Your task to perform on an android device: clear all cookies in the chrome app Image 0: 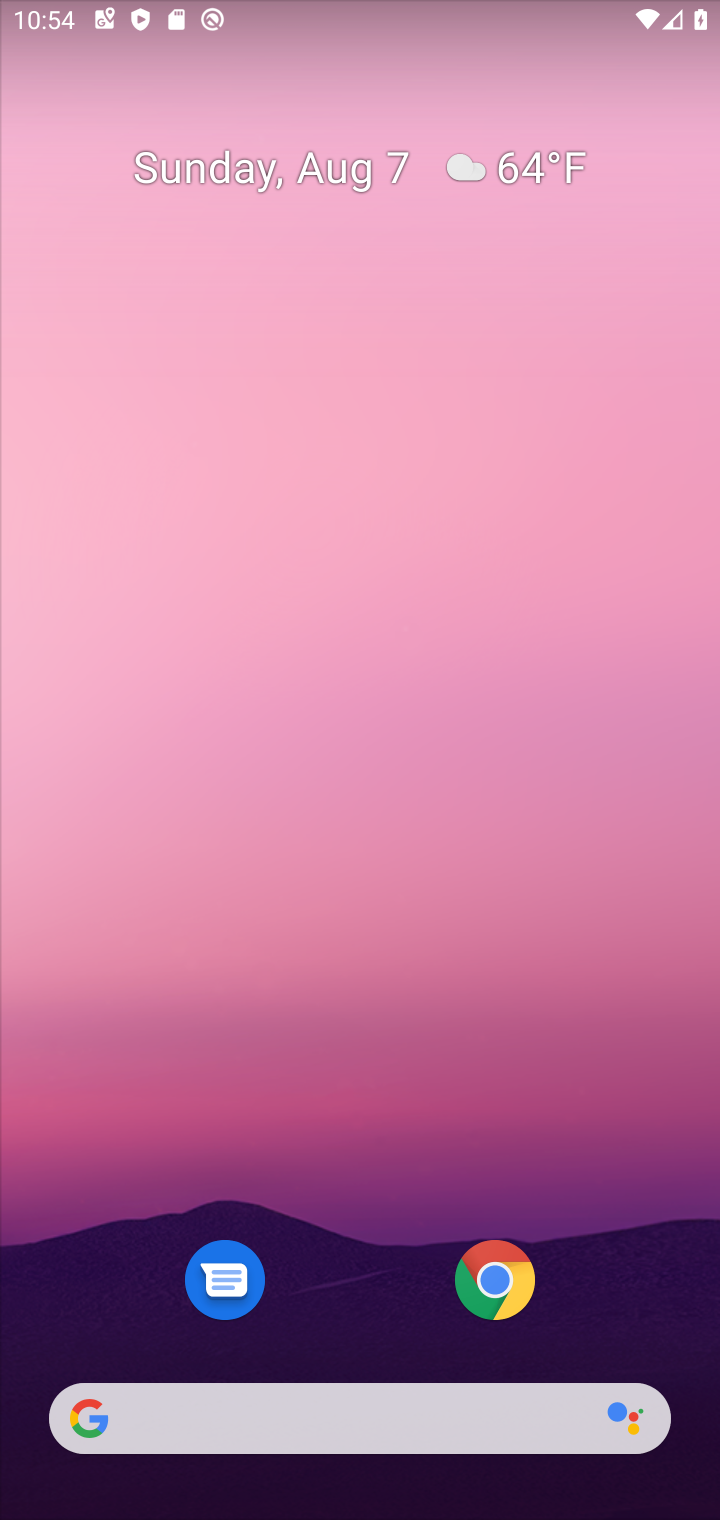
Step 0: click (490, 1276)
Your task to perform on an android device: clear all cookies in the chrome app Image 1: 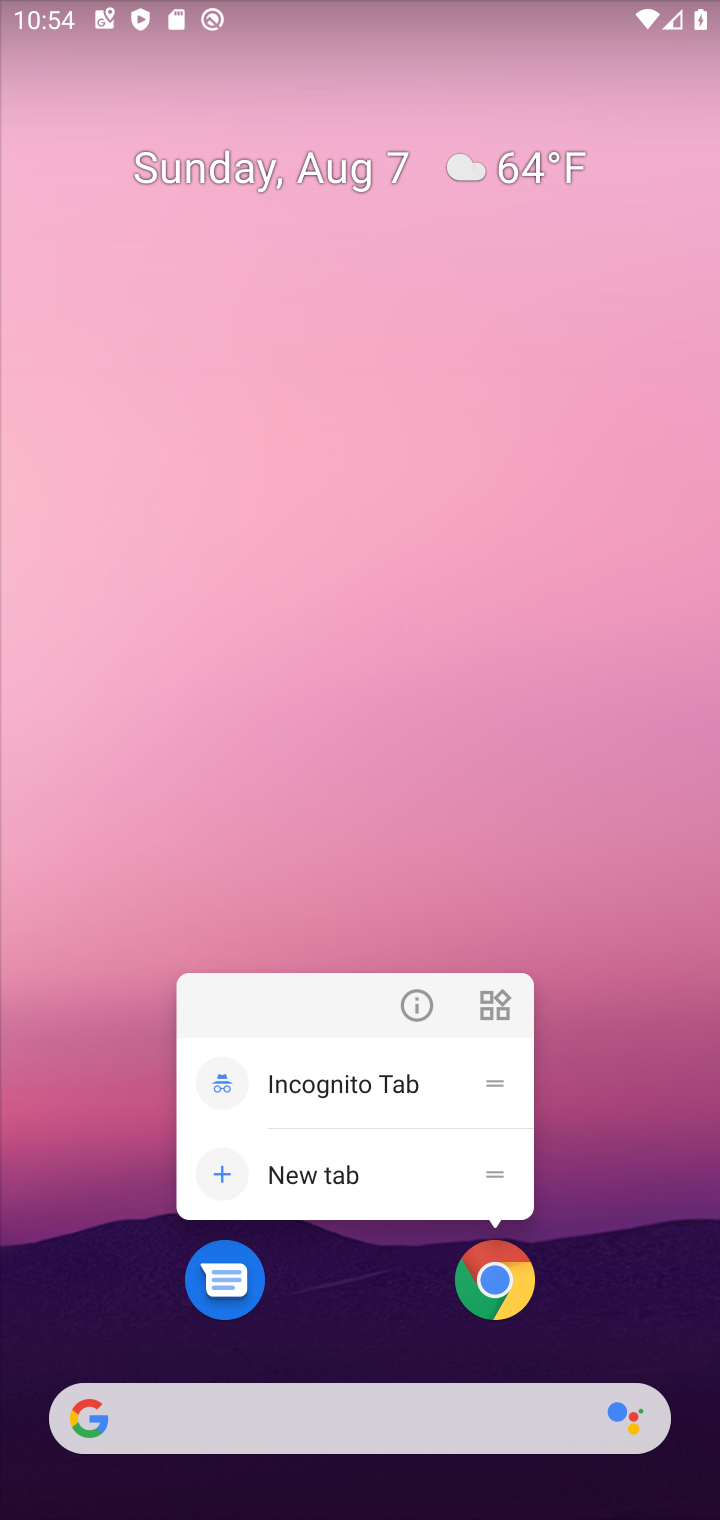
Step 1: click (515, 1271)
Your task to perform on an android device: clear all cookies in the chrome app Image 2: 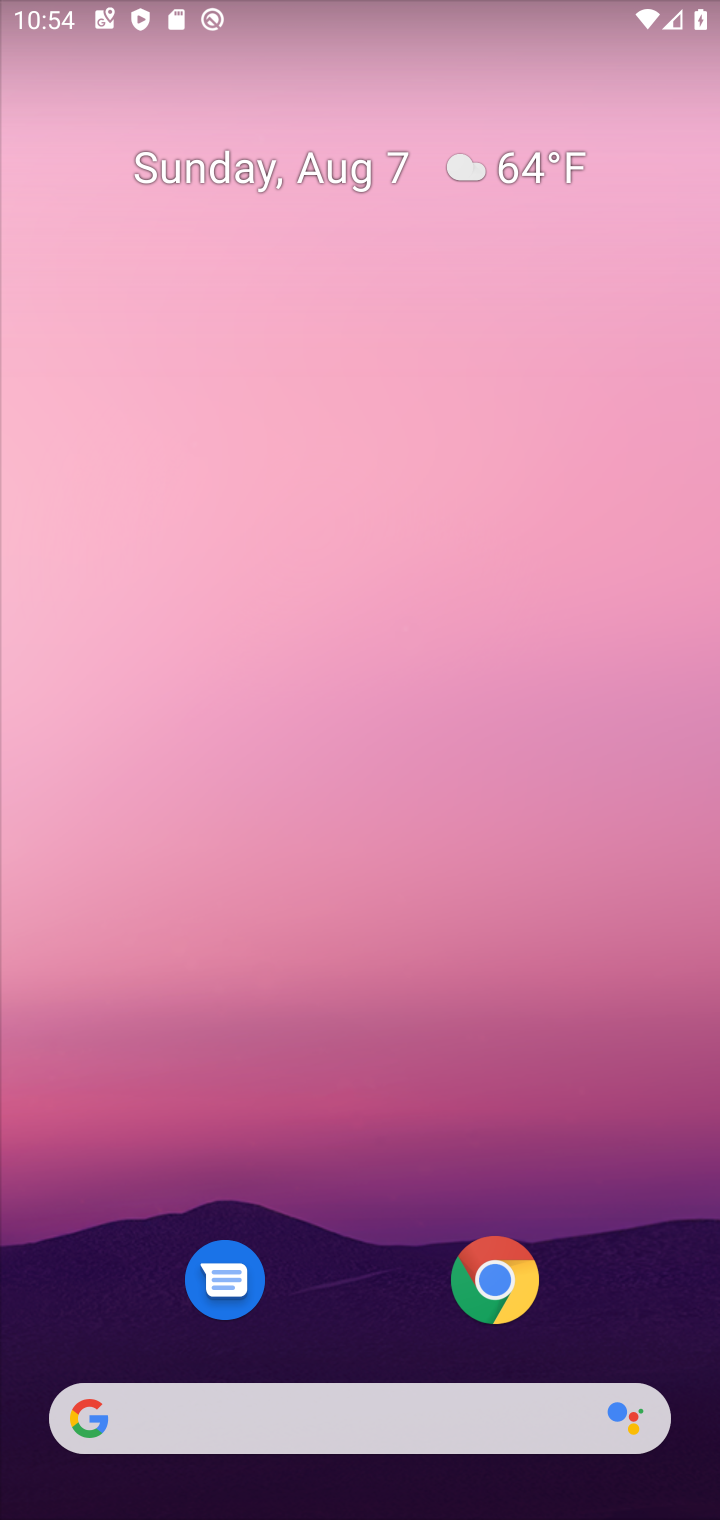
Step 2: click (488, 1285)
Your task to perform on an android device: clear all cookies in the chrome app Image 3: 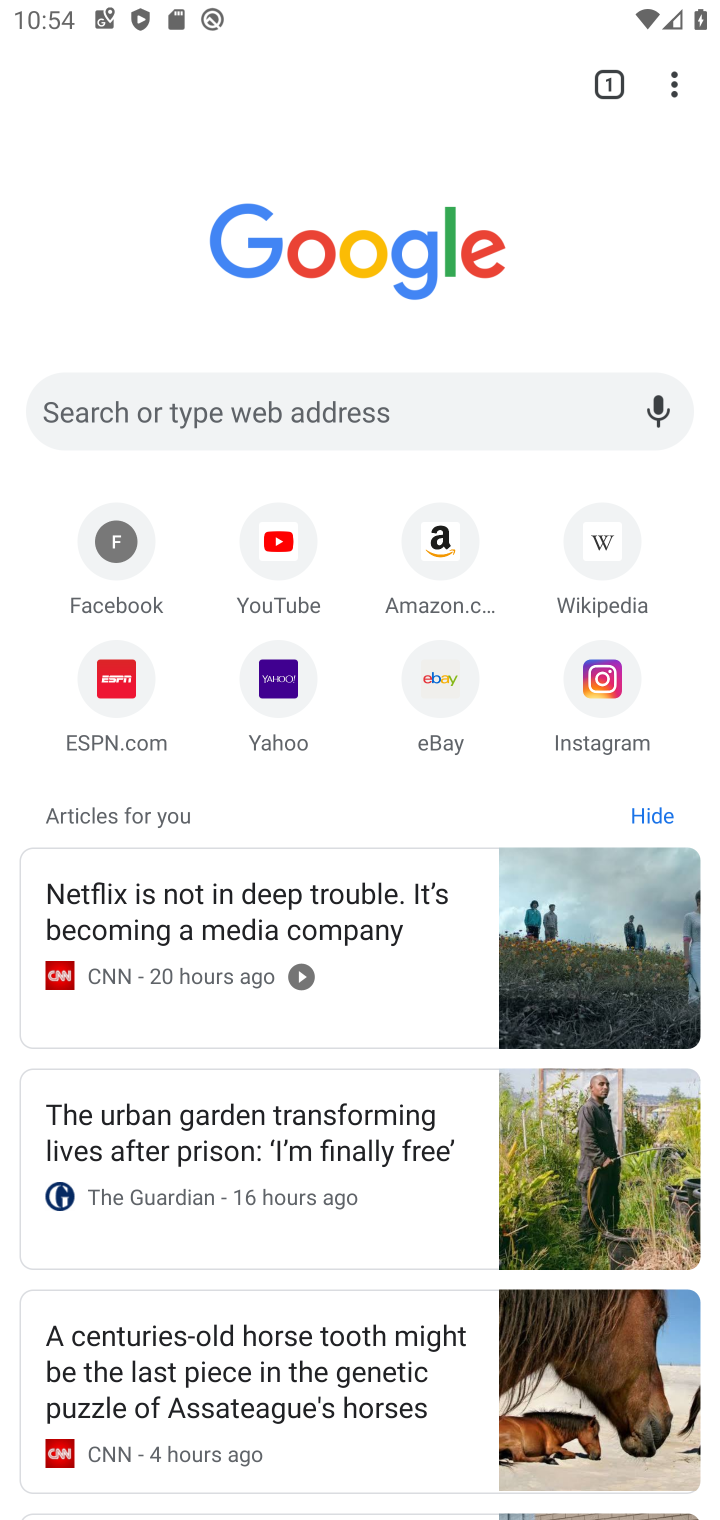
Step 3: drag from (677, 72) to (394, 466)
Your task to perform on an android device: clear all cookies in the chrome app Image 4: 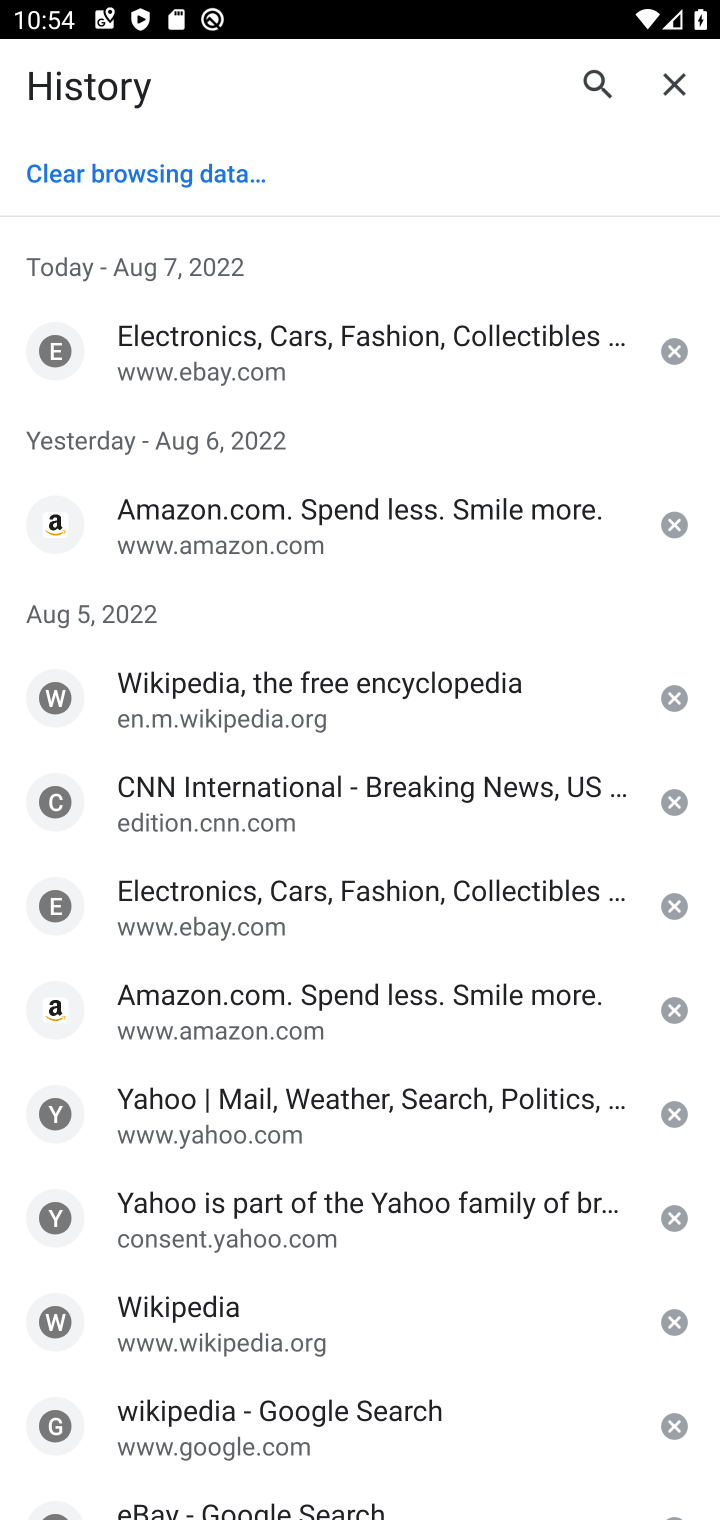
Step 4: click (215, 165)
Your task to perform on an android device: clear all cookies in the chrome app Image 5: 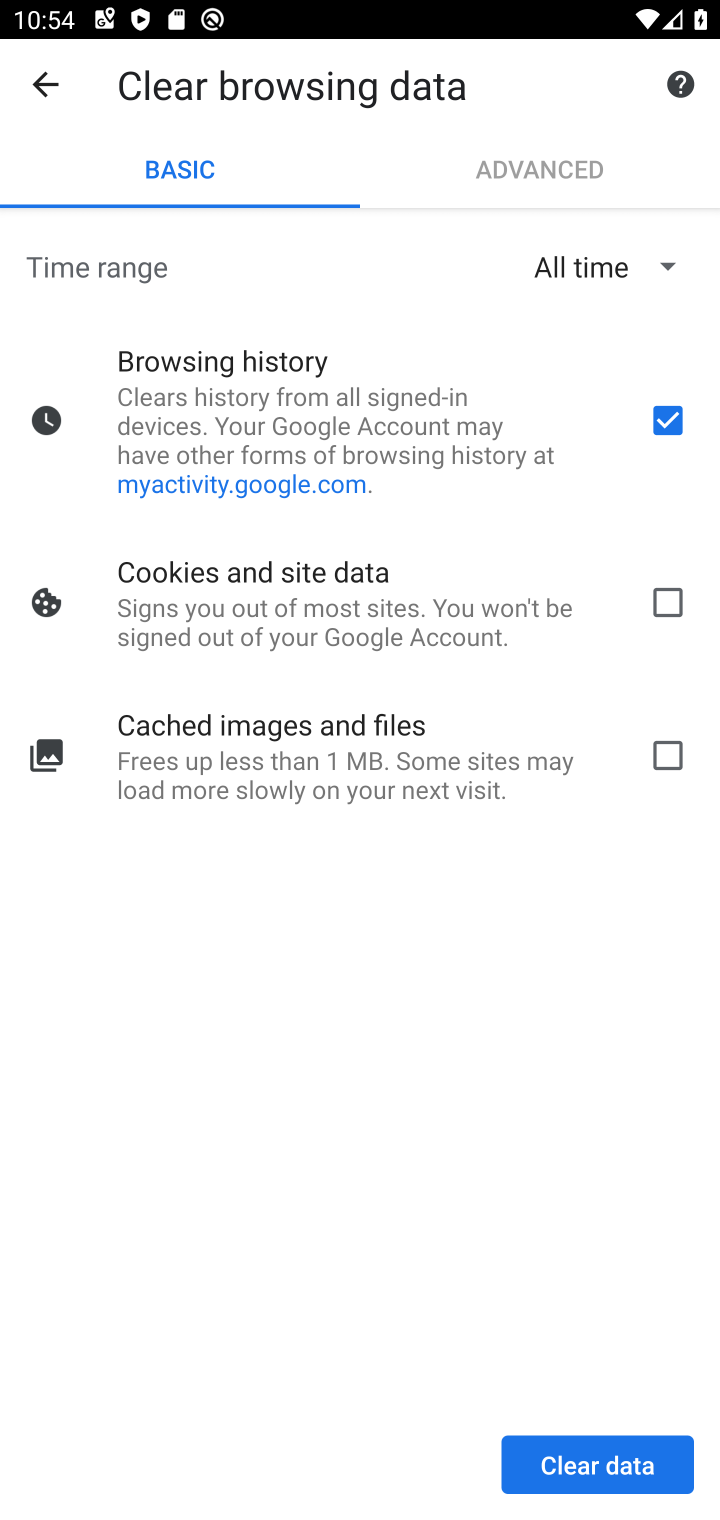
Step 5: click (659, 608)
Your task to perform on an android device: clear all cookies in the chrome app Image 6: 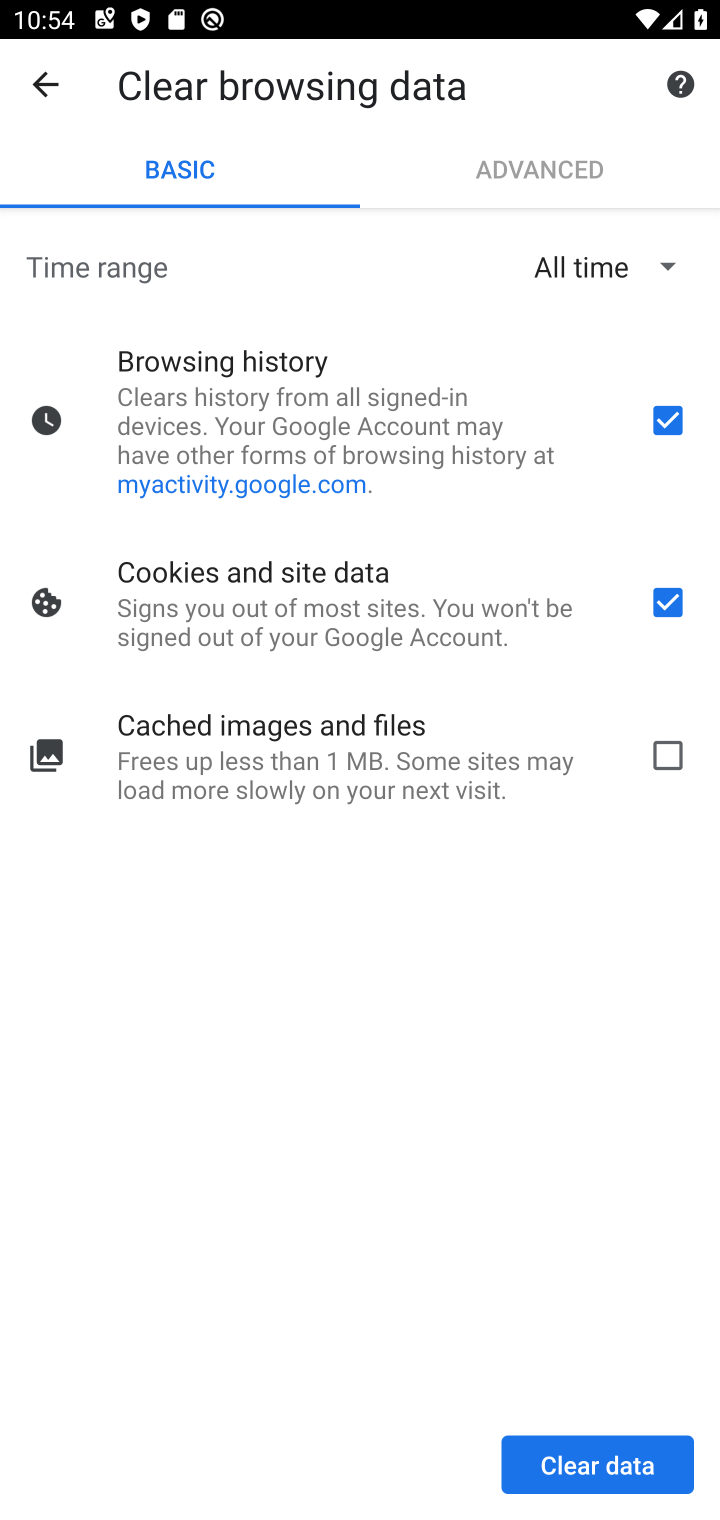
Step 6: click (674, 412)
Your task to perform on an android device: clear all cookies in the chrome app Image 7: 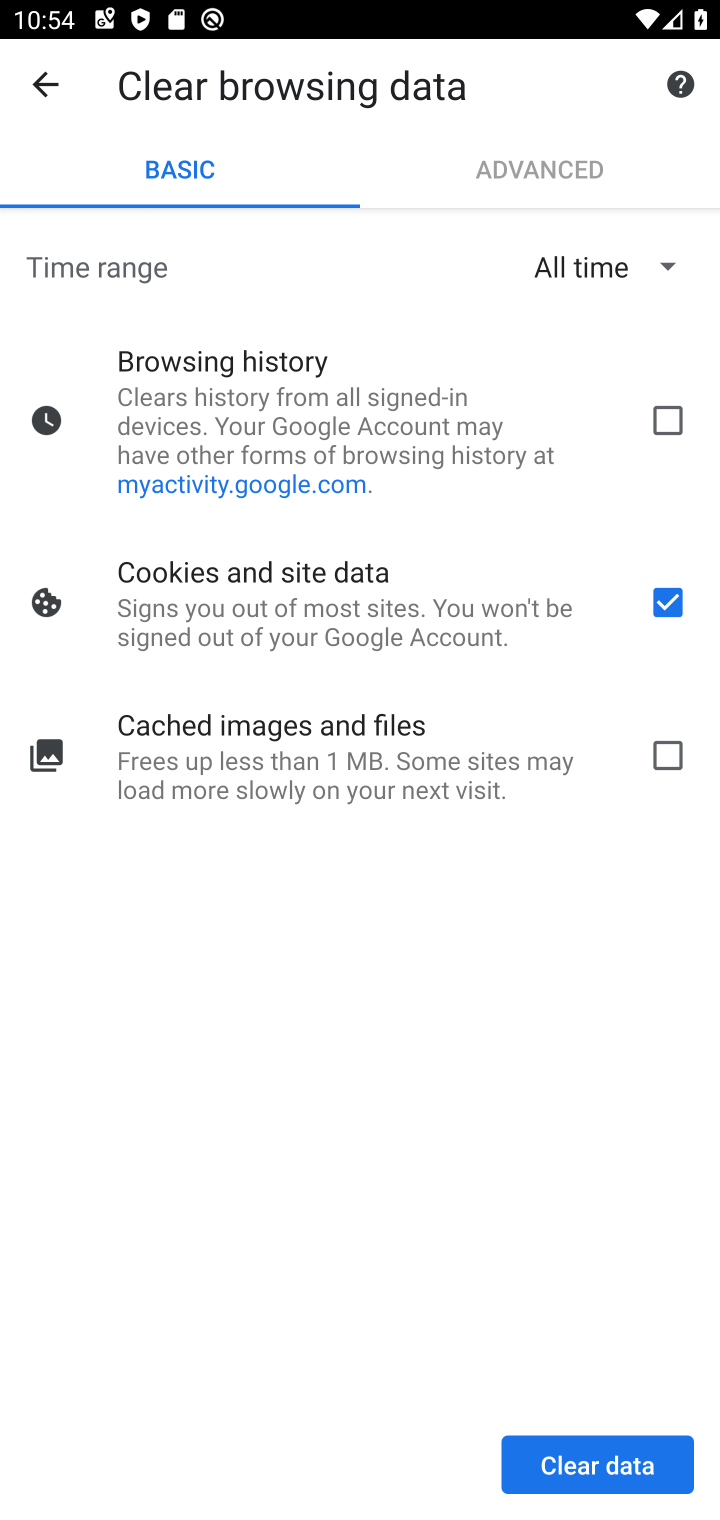
Step 7: click (589, 1464)
Your task to perform on an android device: clear all cookies in the chrome app Image 8: 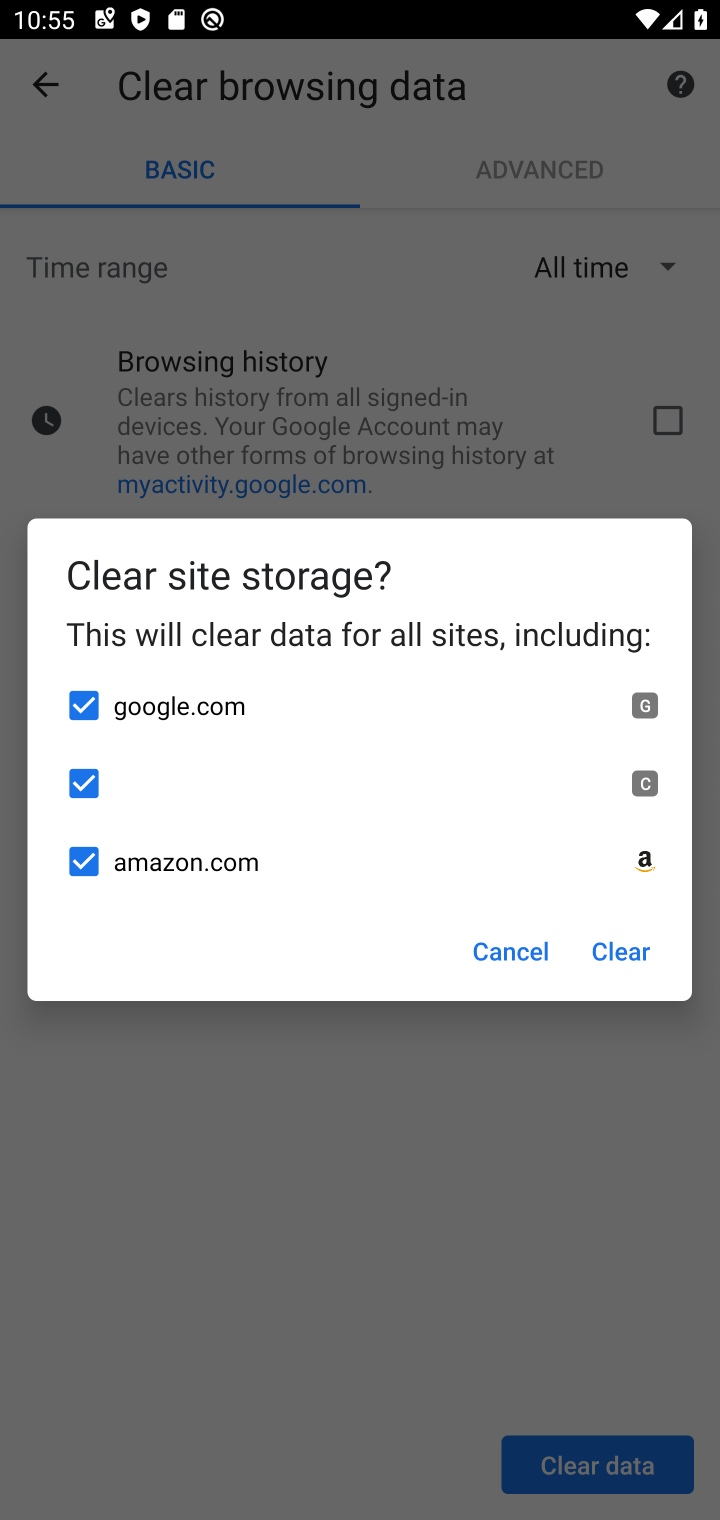
Step 8: click (630, 948)
Your task to perform on an android device: clear all cookies in the chrome app Image 9: 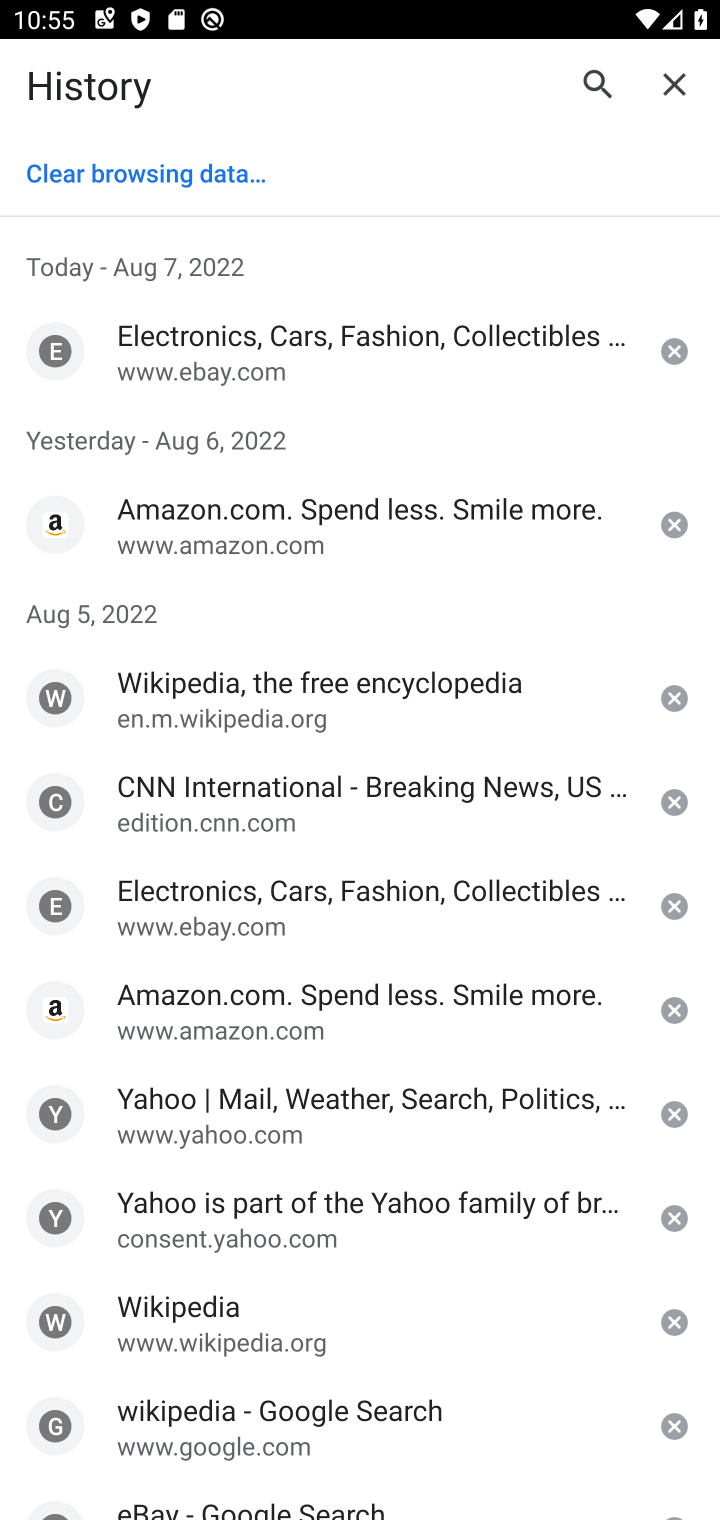
Step 9: task complete